Your task to perform on an android device: What's on my calendar today? Image 0: 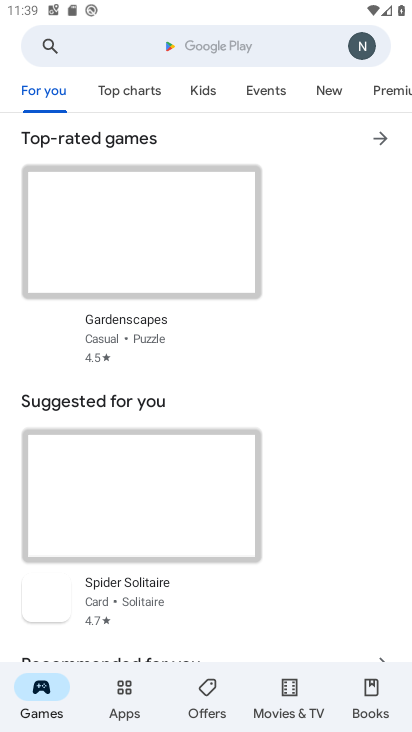
Step 0: press home button
Your task to perform on an android device: What's on my calendar today? Image 1: 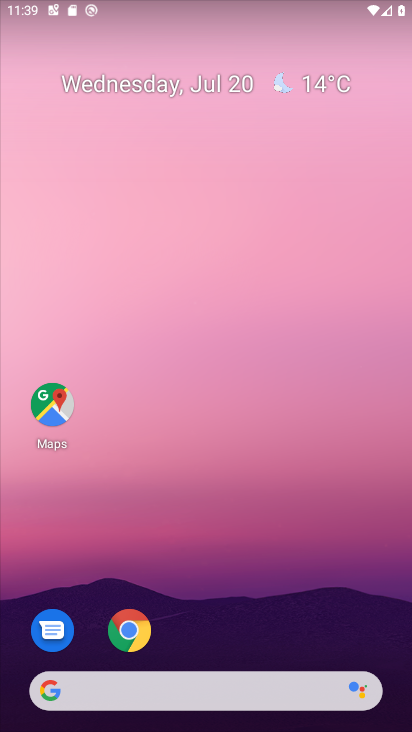
Step 1: drag from (212, 645) to (329, 2)
Your task to perform on an android device: What's on my calendar today? Image 2: 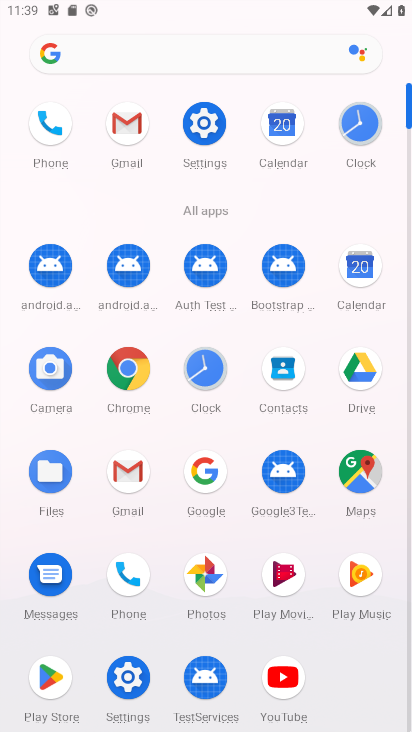
Step 2: click (348, 285)
Your task to perform on an android device: What's on my calendar today? Image 3: 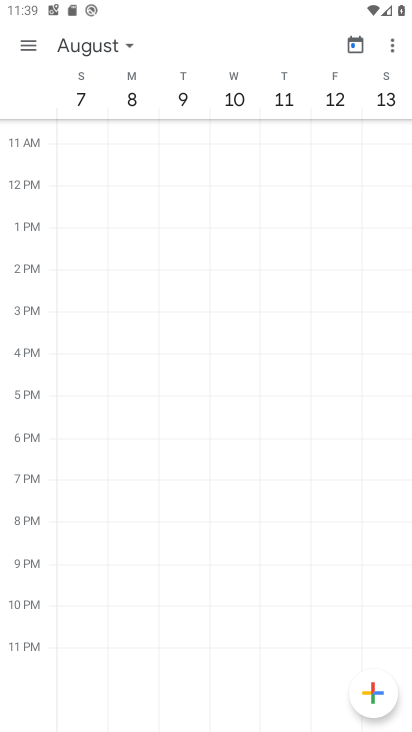
Step 3: click (353, 46)
Your task to perform on an android device: What's on my calendar today? Image 4: 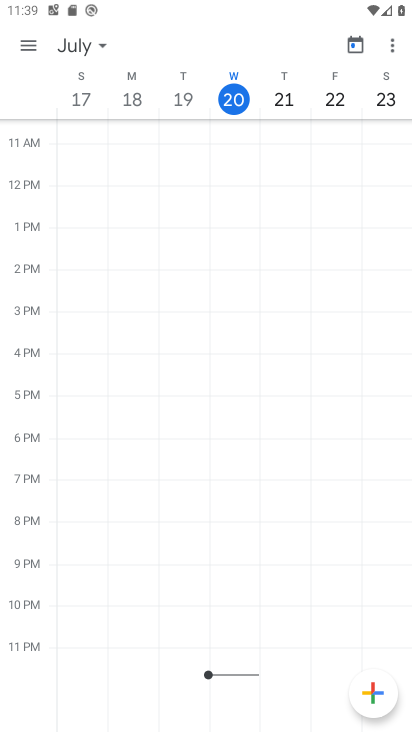
Step 4: click (286, 101)
Your task to perform on an android device: What's on my calendar today? Image 5: 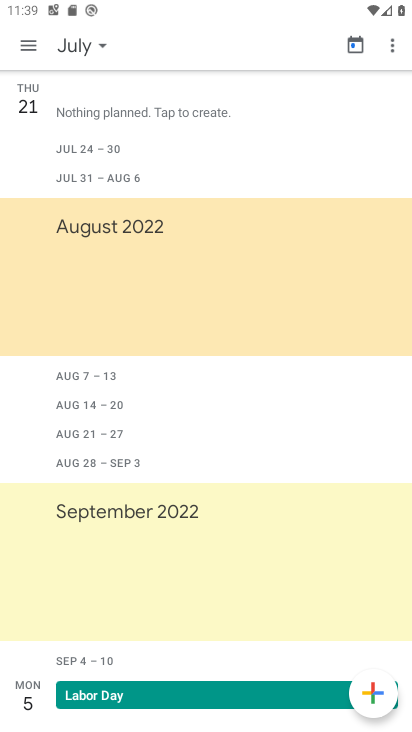
Step 5: click (360, 43)
Your task to perform on an android device: What's on my calendar today? Image 6: 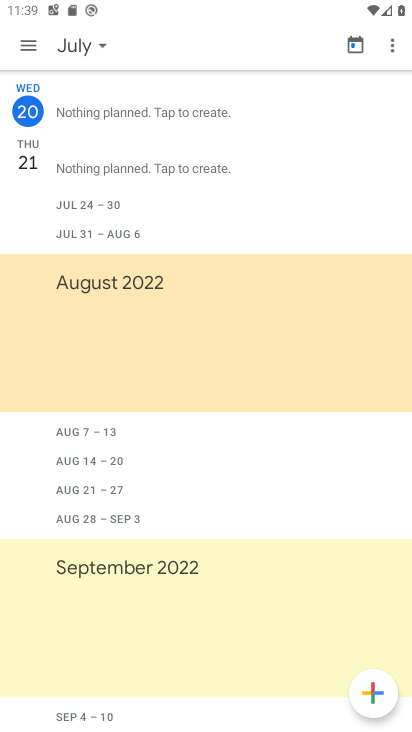
Step 6: click (22, 118)
Your task to perform on an android device: What's on my calendar today? Image 7: 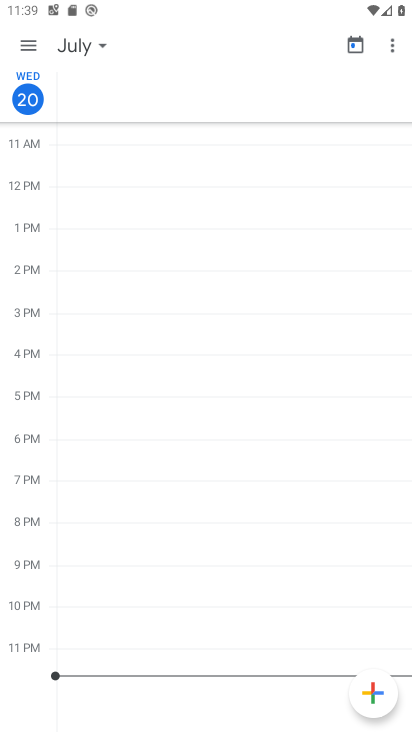
Step 7: press home button
Your task to perform on an android device: What's on my calendar today? Image 8: 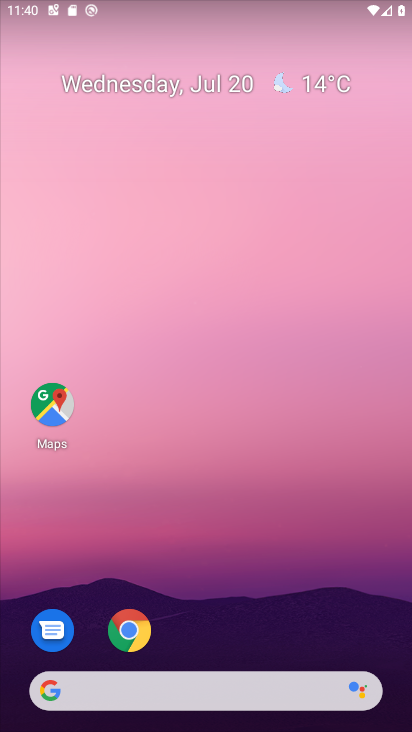
Step 8: drag from (248, 667) to (111, 44)
Your task to perform on an android device: What's on my calendar today? Image 9: 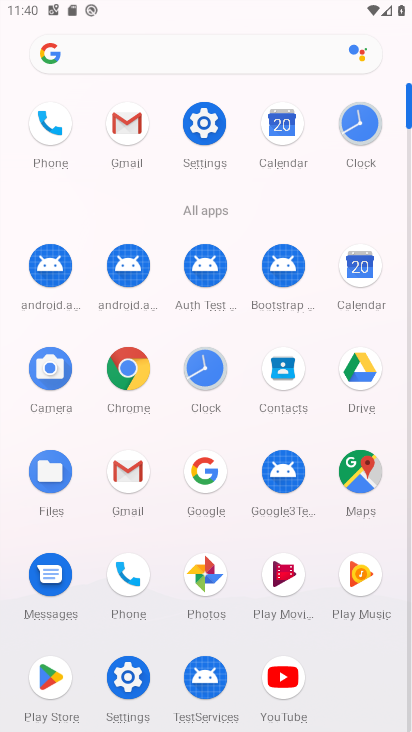
Step 9: click (352, 276)
Your task to perform on an android device: What's on my calendar today? Image 10: 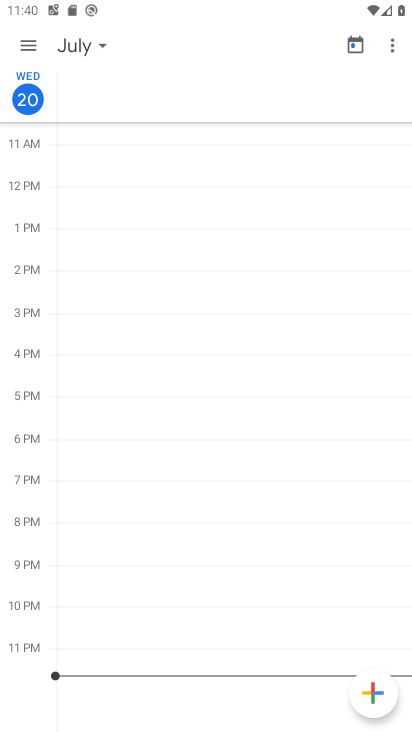
Step 10: click (29, 83)
Your task to perform on an android device: What's on my calendar today? Image 11: 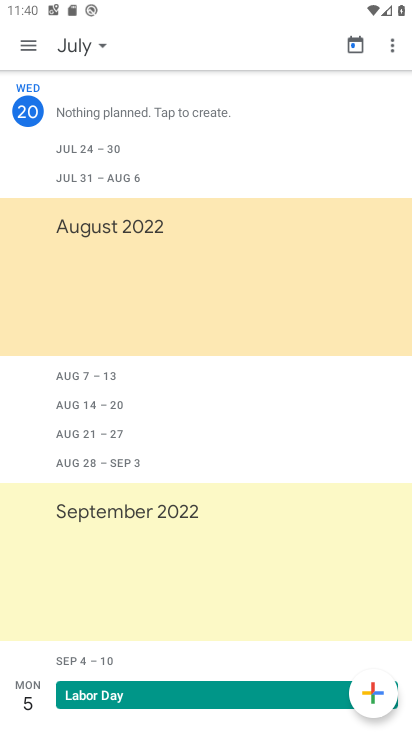
Step 11: task complete